Your task to perform on an android device: turn pop-ups on in chrome Image 0: 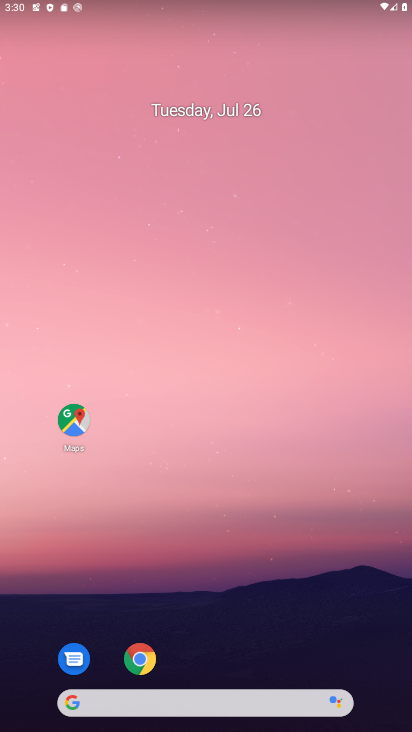
Step 0: click (141, 661)
Your task to perform on an android device: turn pop-ups on in chrome Image 1: 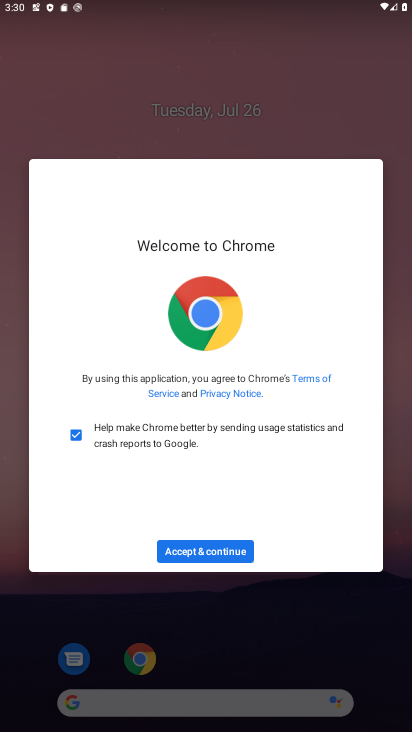
Step 1: click (238, 558)
Your task to perform on an android device: turn pop-ups on in chrome Image 2: 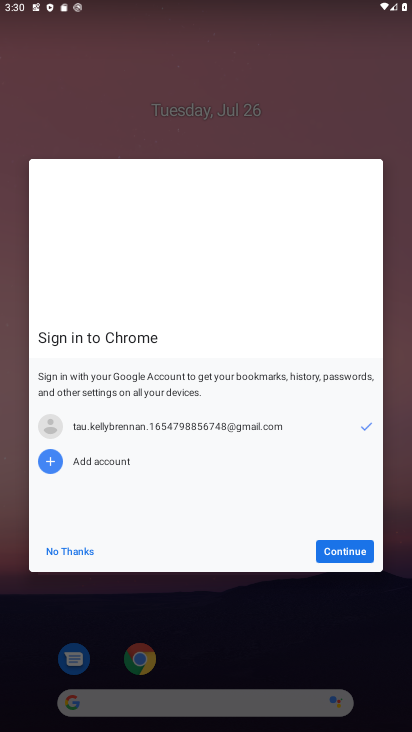
Step 2: click (337, 548)
Your task to perform on an android device: turn pop-ups on in chrome Image 3: 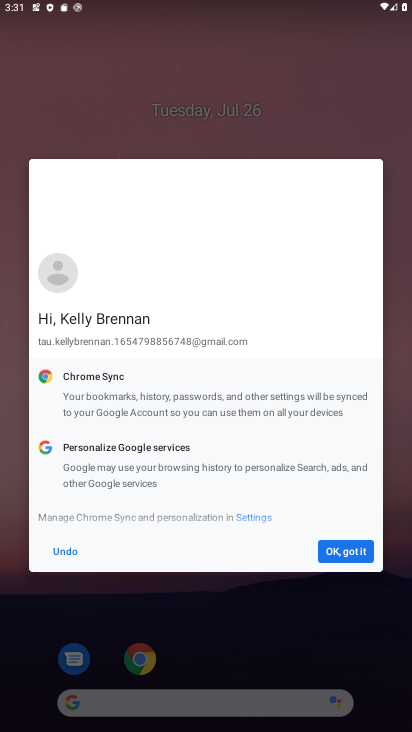
Step 3: click (343, 548)
Your task to perform on an android device: turn pop-ups on in chrome Image 4: 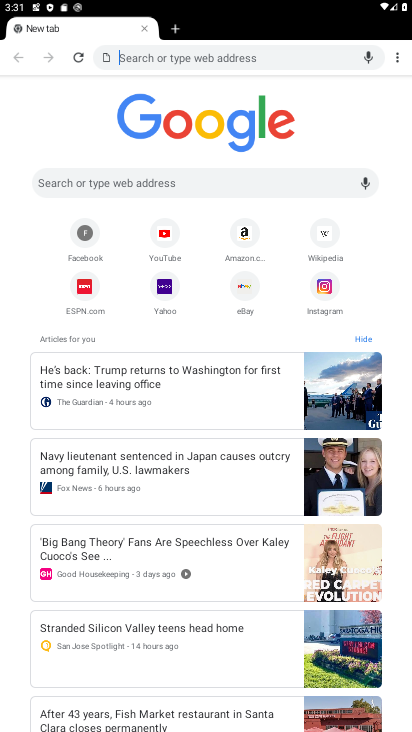
Step 4: click (402, 53)
Your task to perform on an android device: turn pop-ups on in chrome Image 5: 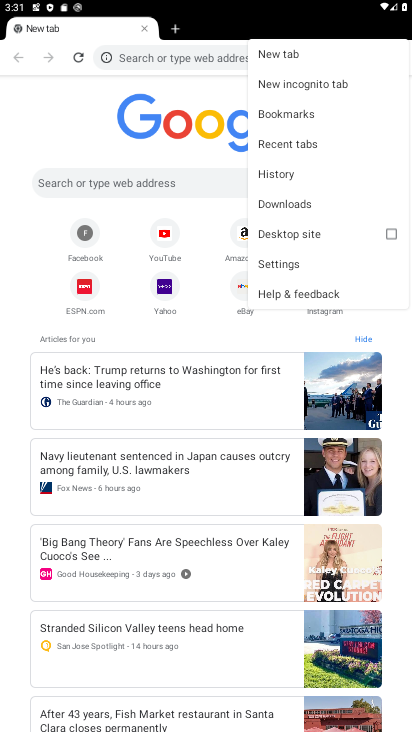
Step 5: click (295, 266)
Your task to perform on an android device: turn pop-ups on in chrome Image 6: 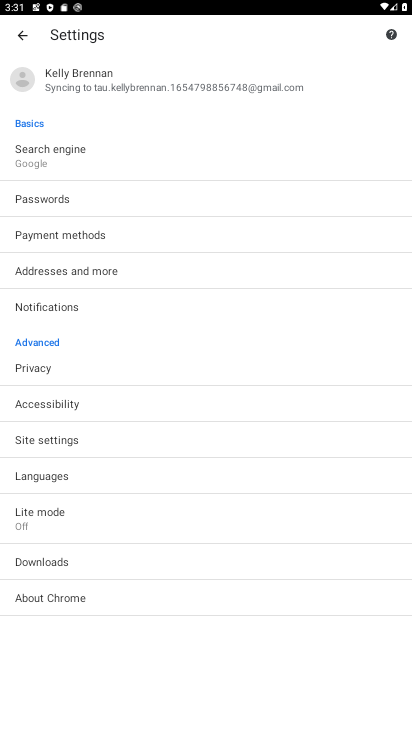
Step 6: click (91, 436)
Your task to perform on an android device: turn pop-ups on in chrome Image 7: 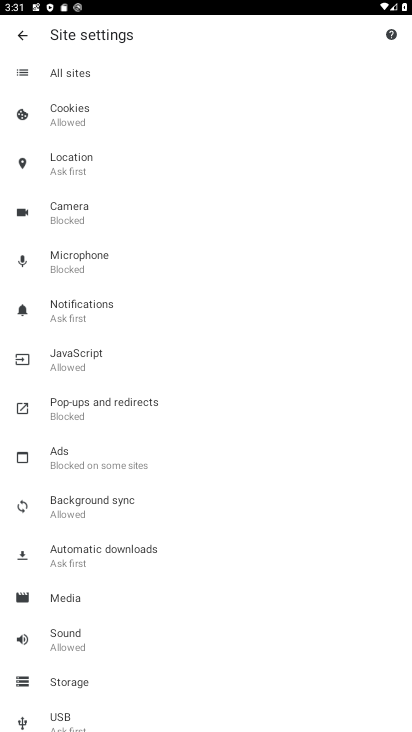
Step 7: click (91, 401)
Your task to perform on an android device: turn pop-ups on in chrome Image 8: 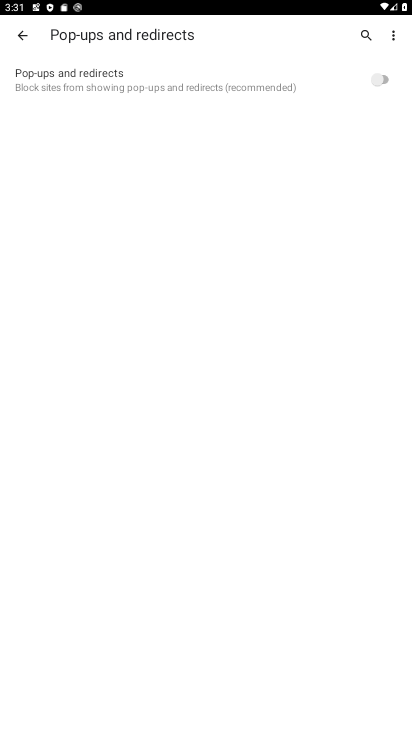
Step 8: click (374, 84)
Your task to perform on an android device: turn pop-ups on in chrome Image 9: 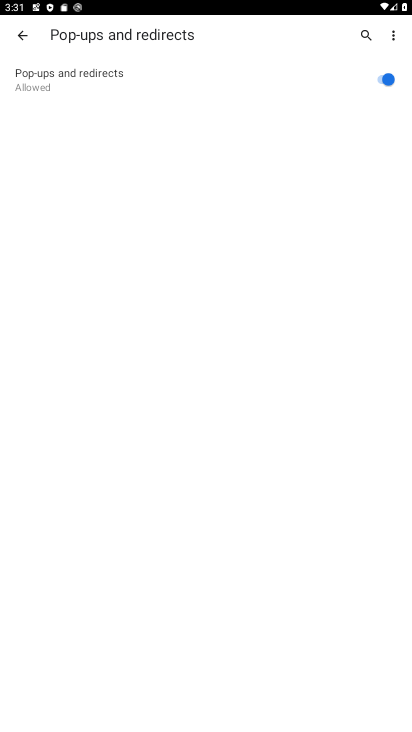
Step 9: task complete